Your task to perform on an android device: turn off javascript in the chrome app Image 0: 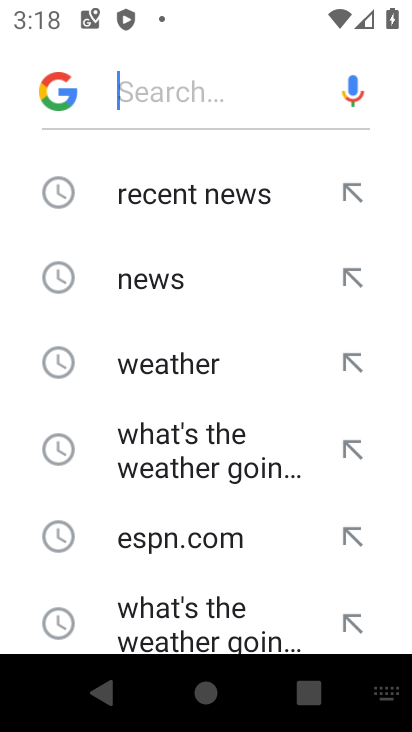
Step 0: press home button
Your task to perform on an android device: turn off javascript in the chrome app Image 1: 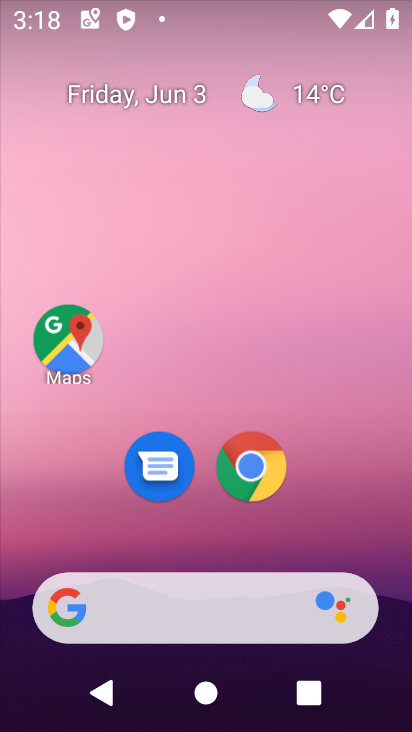
Step 1: click (259, 443)
Your task to perform on an android device: turn off javascript in the chrome app Image 2: 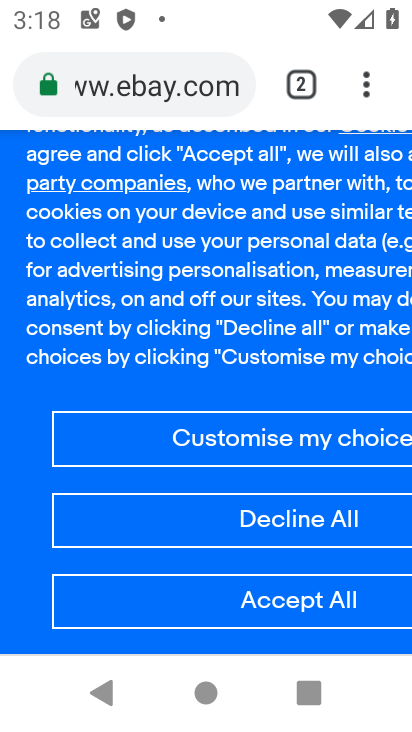
Step 2: click (355, 58)
Your task to perform on an android device: turn off javascript in the chrome app Image 3: 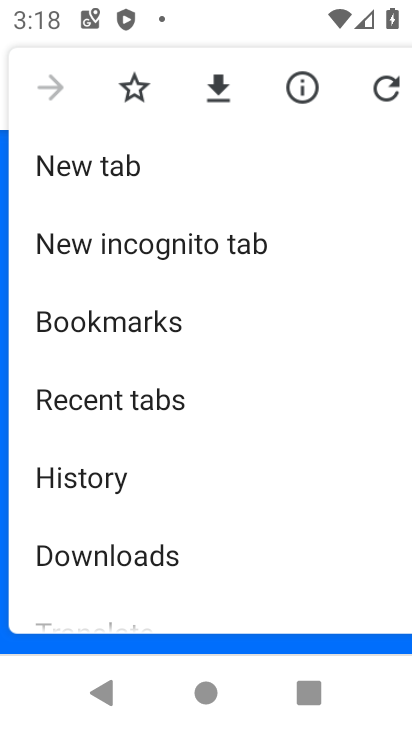
Step 3: drag from (237, 540) to (204, 227)
Your task to perform on an android device: turn off javascript in the chrome app Image 4: 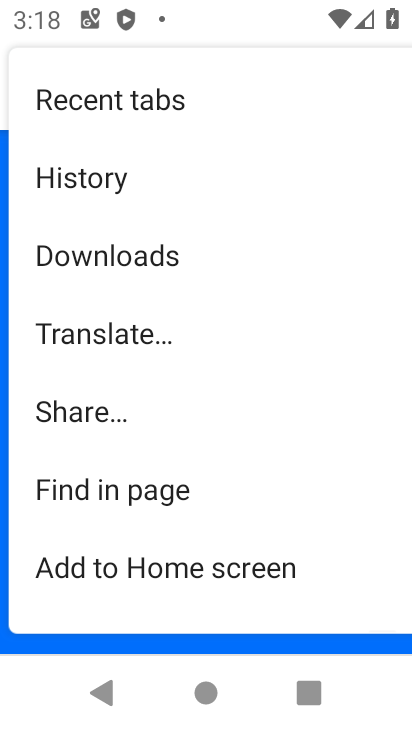
Step 4: drag from (189, 518) to (207, 194)
Your task to perform on an android device: turn off javascript in the chrome app Image 5: 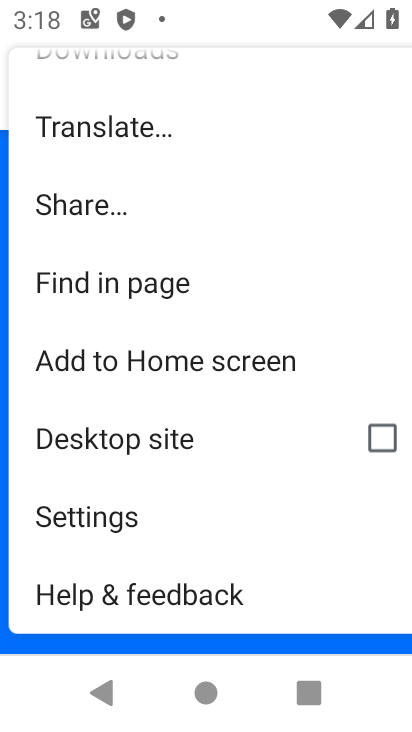
Step 5: click (185, 524)
Your task to perform on an android device: turn off javascript in the chrome app Image 6: 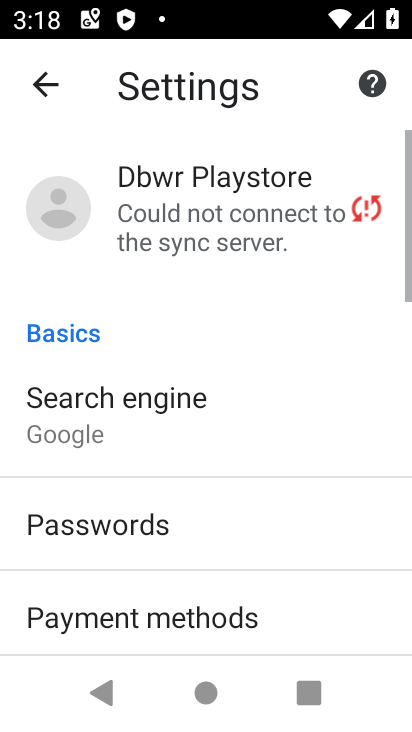
Step 6: drag from (181, 468) to (174, 155)
Your task to perform on an android device: turn off javascript in the chrome app Image 7: 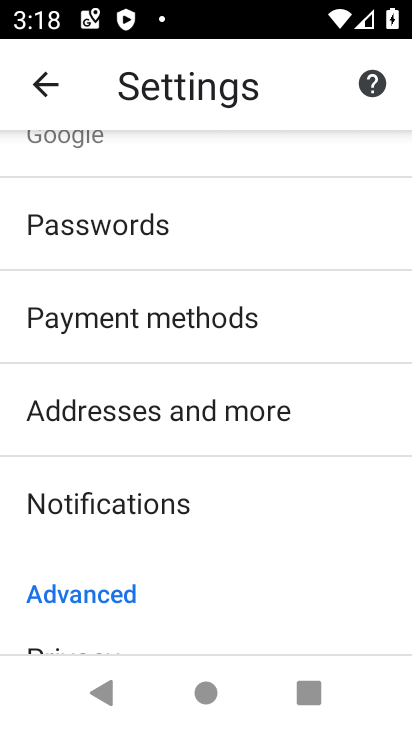
Step 7: drag from (176, 560) to (164, 158)
Your task to perform on an android device: turn off javascript in the chrome app Image 8: 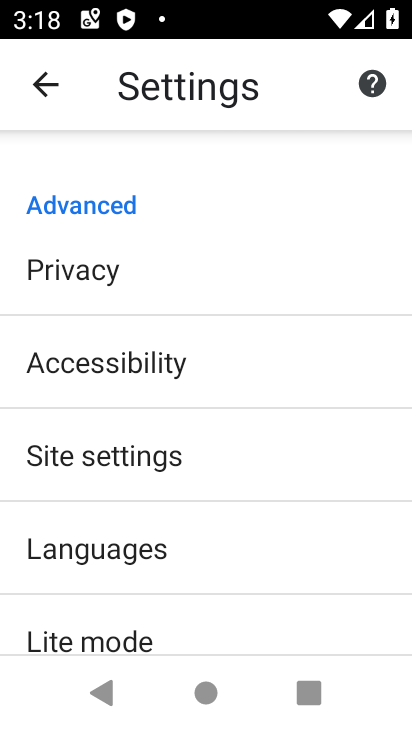
Step 8: click (148, 447)
Your task to perform on an android device: turn off javascript in the chrome app Image 9: 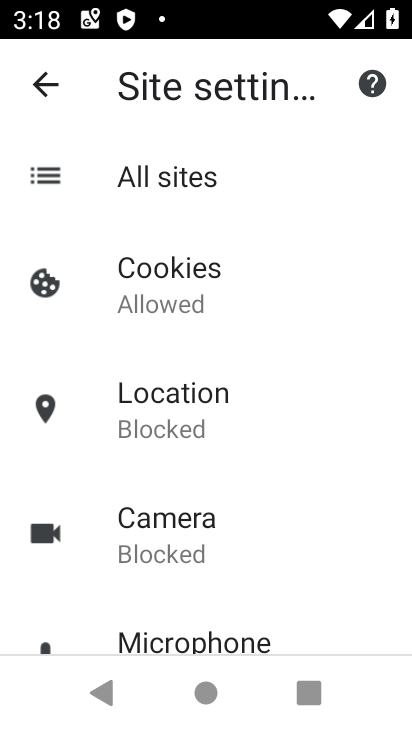
Step 9: drag from (167, 538) to (182, 130)
Your task to perform on an android device: turn off javascript in the chrome app Image 10: 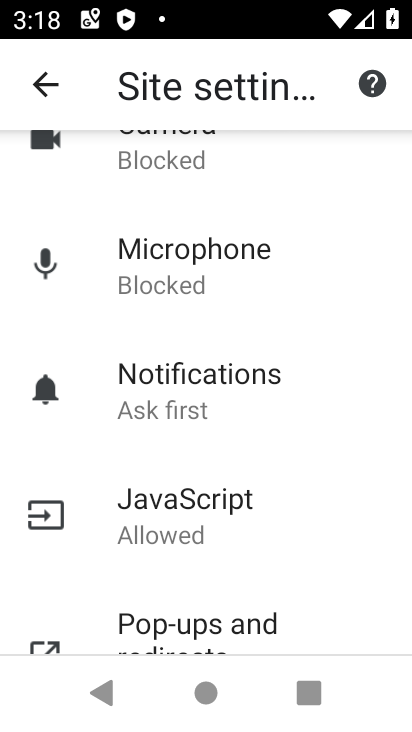
Step 10: click (172, 541)
Your task to perform on an android device: turn off javascript in the chrome app Image 11: 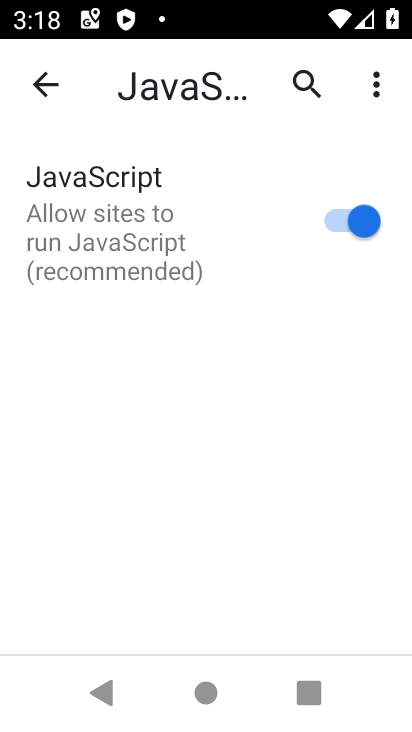
Step 11: click (282, 225)
Your task to perform on an android device: turn off javascript in the chrome app Image 12: 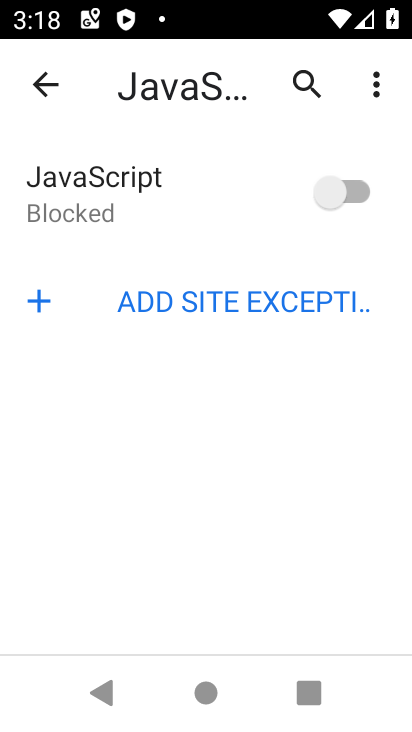
Step 12: task complete